Your task to perform on an android device: Open wifi settings Image 0: 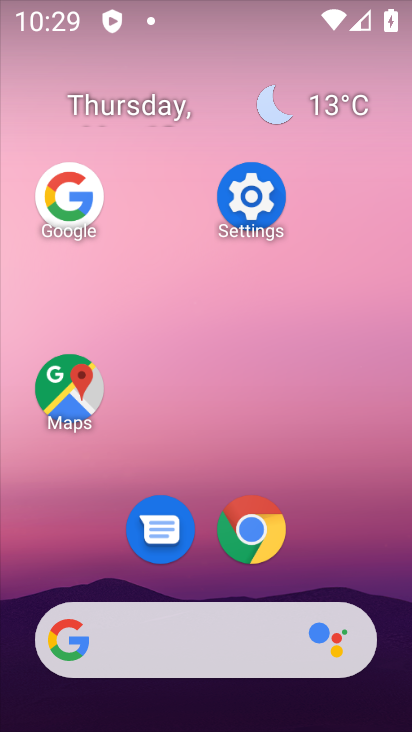
Step 0: click (259, 186)
Your task to perform on an android device: Open wifi settings Image 1: 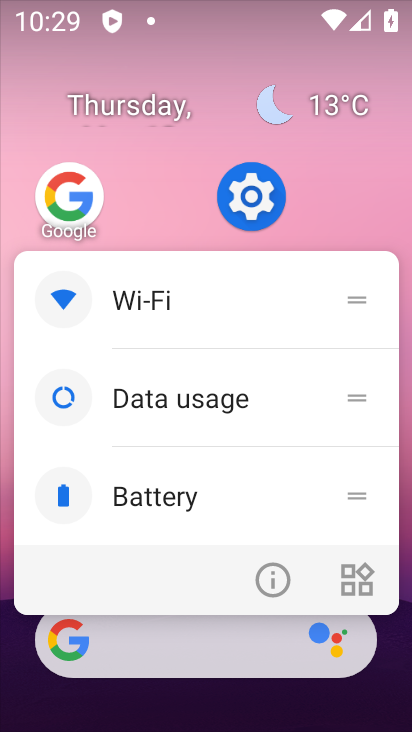
Step 1: click (195, 297)
Your task to perform on an android device: Open wifi settings Image 2: 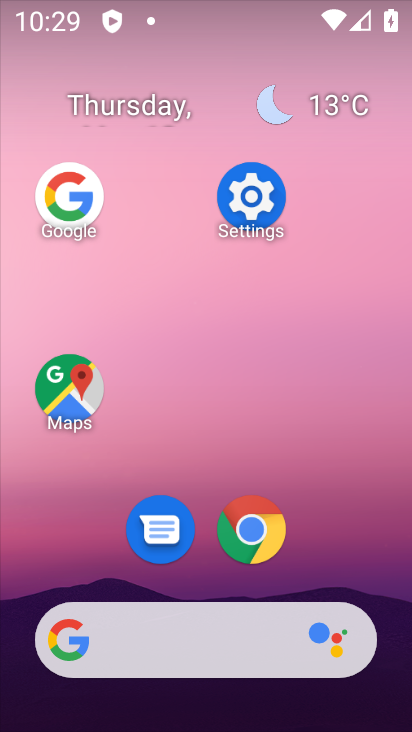
Step 2: click (248, 196)
Your task to perform on an android device: Open wifi settings Image 3: 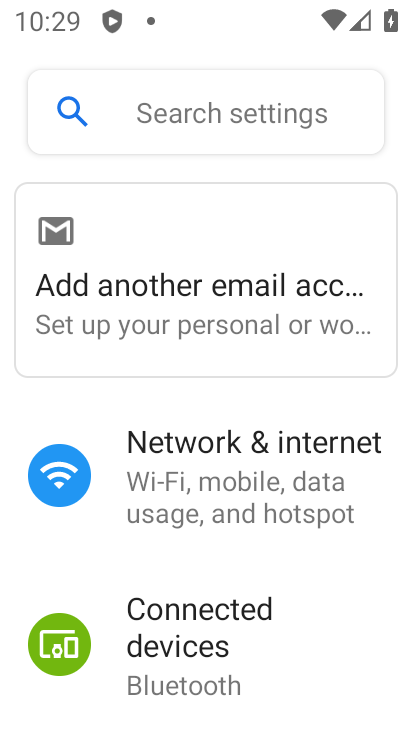
Step 3: click (124, 514)
Your task to perform on an android device: Open wifi settings Image 4: 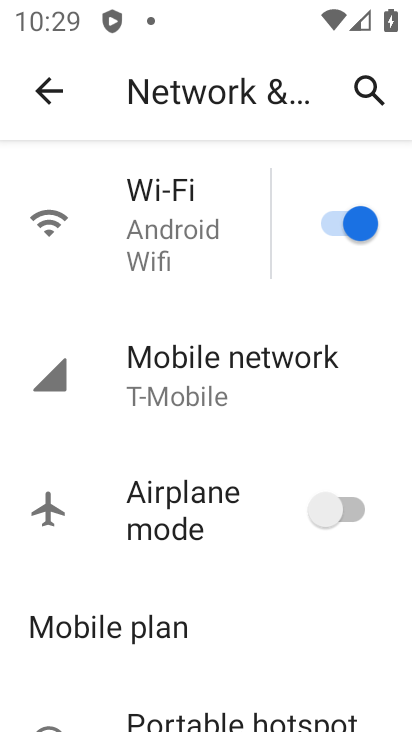
Step 4: click (234, 211)
Your task to perform on an android device: Open wifi settings Image 5: 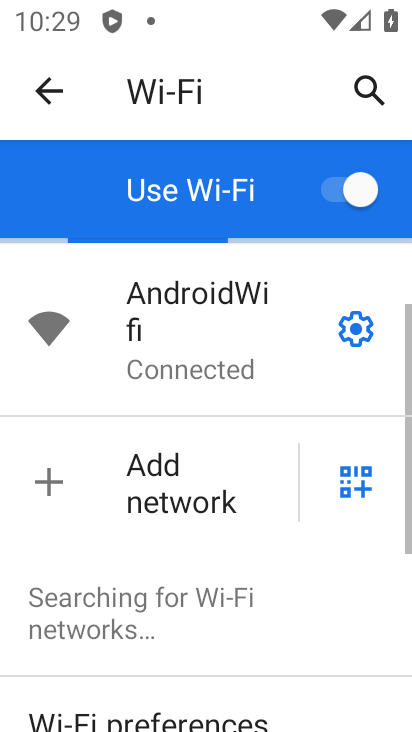
Step 5: click (356, 318)
Your task to perform on an android device: Open wifi settings Image 6: 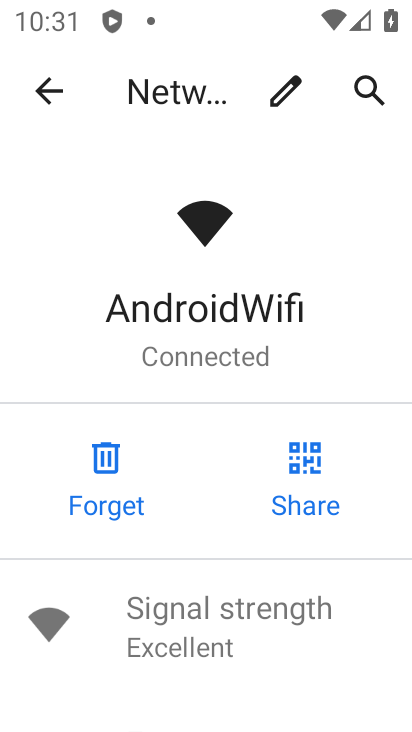
Step 6: task complete